Your task to perform on an android device: What's the weather going to be this weekend? Image 0: 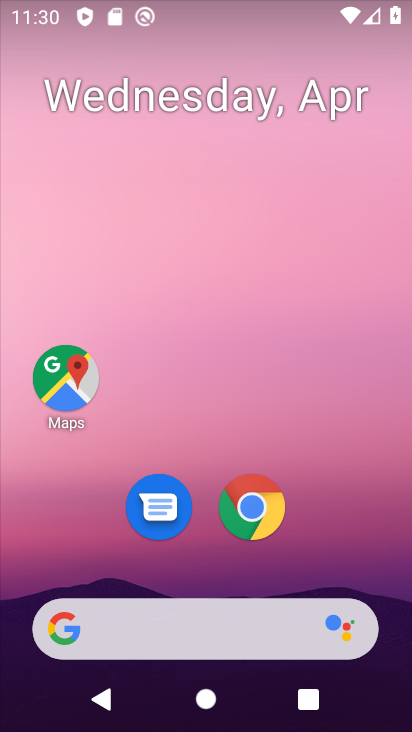
Step 0: drag from (342, 564) to (245, 145)
Your task to perform on an android device: What's the weather going to be this weekend? Image 1: 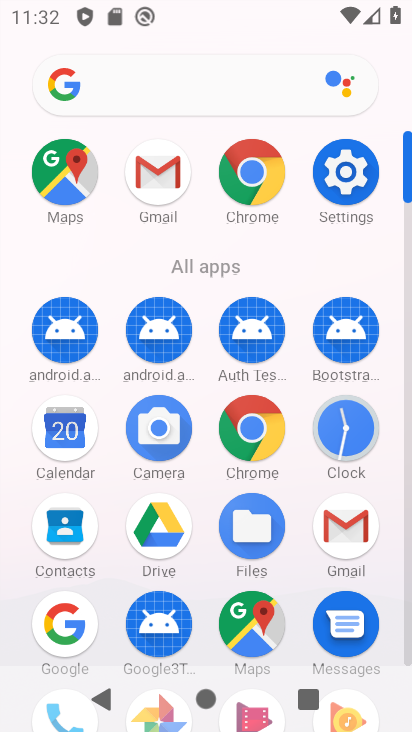
Step 1: task complete